Your task to perform on an android device: open chrome privacy settings Image 0: 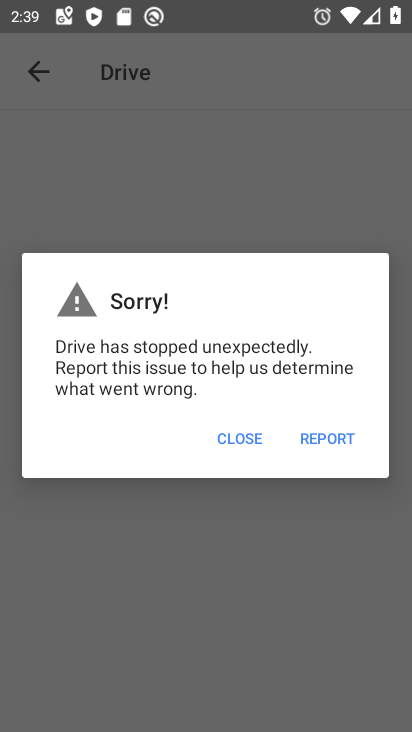
Step 0: press home button
Your task to perform on an android device: open chrome privacy settings Image 1: 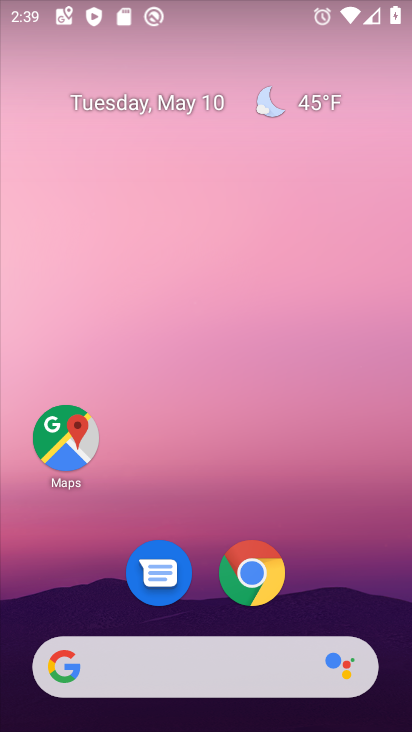
Step 1: drag from (290, 710) to (252, 26)
Your task to perform on an android device: open chrome privacy settings Image 2: 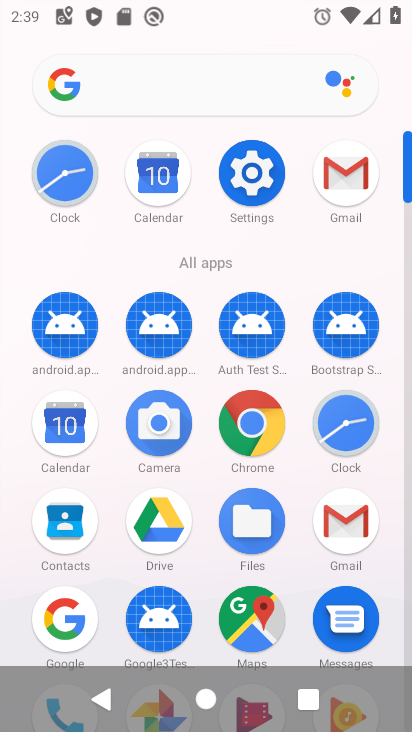
Step 2: click (217, 182)
Your task to perform on an android device: open chrome privacy settings Image 3: 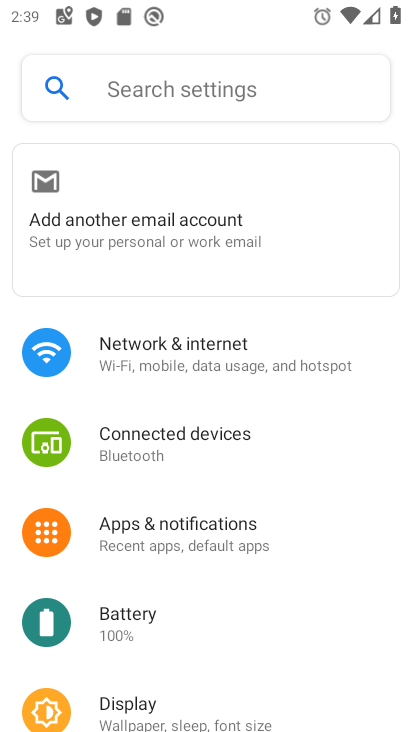
Step 3: drag from (227, 671) to (278, 220)
Your task to perform on an android device: open chrome privacy settings Image 4: 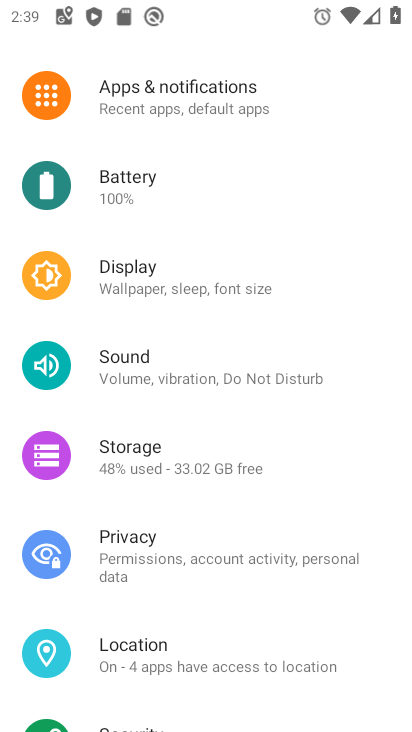
Step 4: click (183, 547)
Your task to perform on an android device: open chrome privacy settings Image 5: 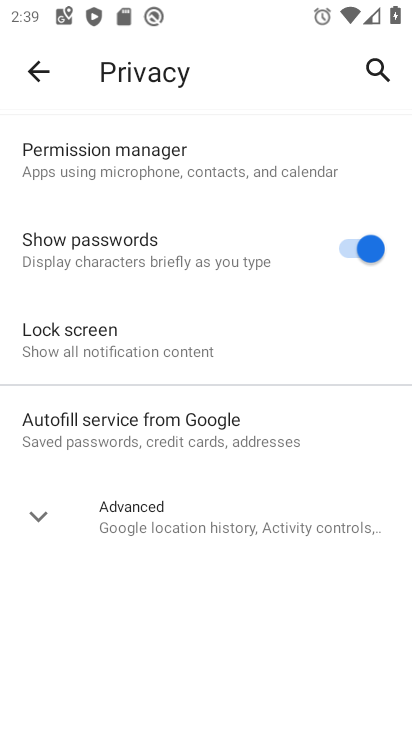
Step 5: task complete